Your task to perform on an android device: open app "Microsoft Outlook" (install if not already installed) Image 0: 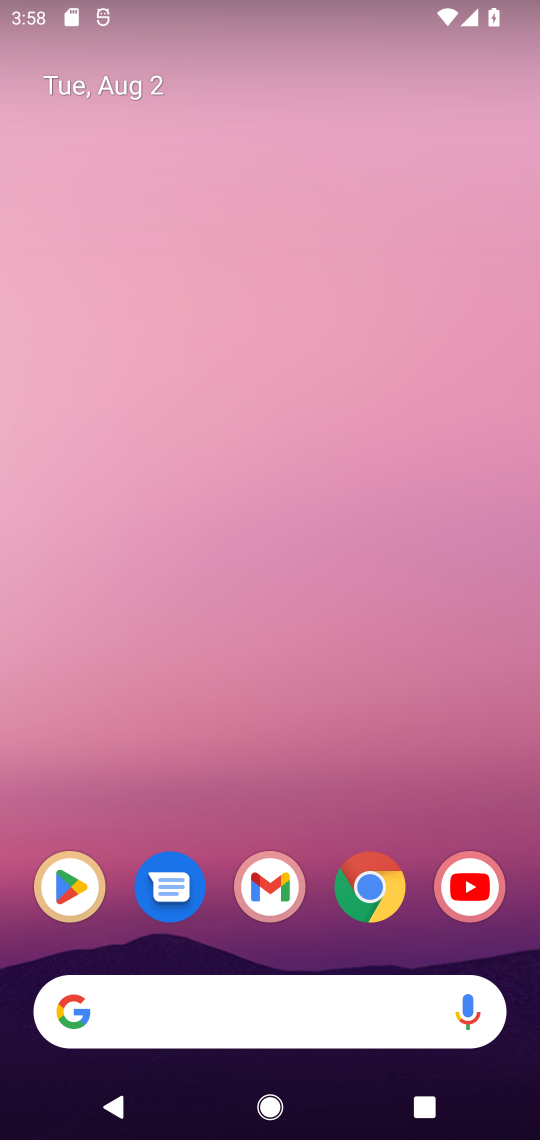
Step 0: click (57, 884)
Your task to perform on an android device: open app "Microsoft Outlook" (install if not already installed) Image 1: 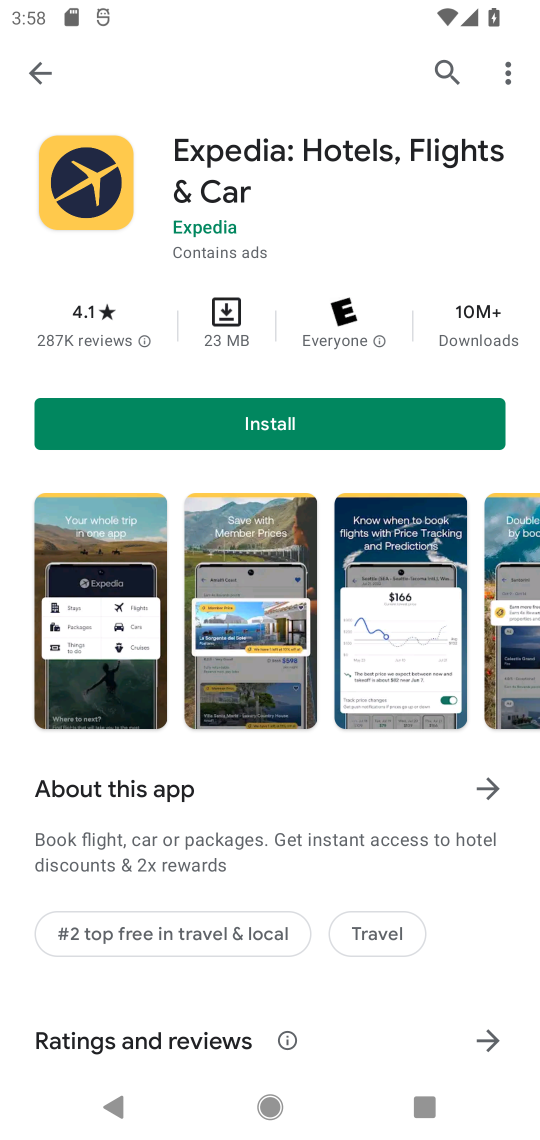
Step 1: click (28, 69)
Your task to perform on an android device: open app "Microsoft Outlook" (install if not already installed) Image 2: 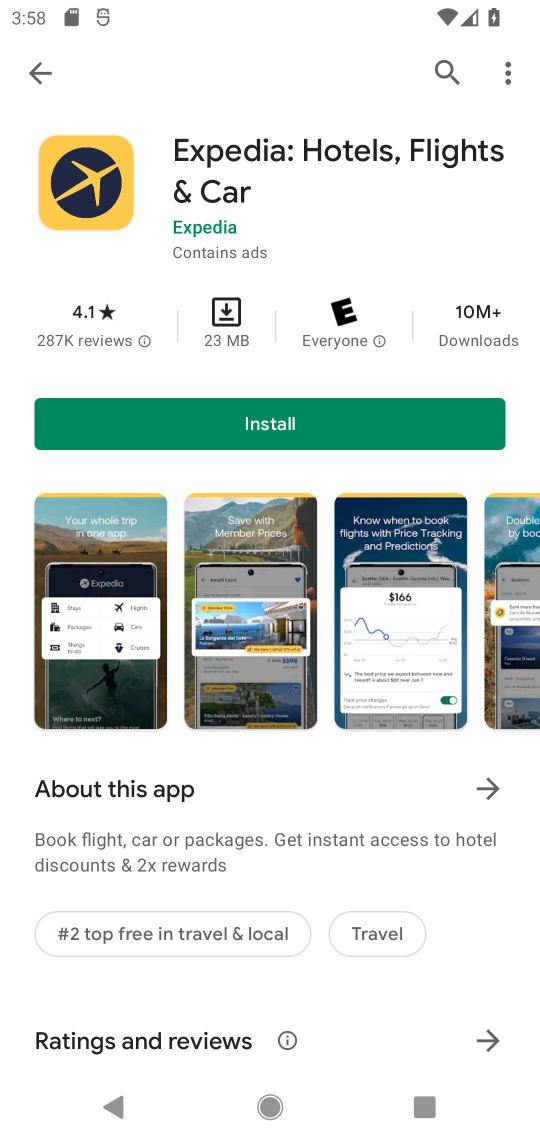
Step 2: click (39, 75)
Your task to perform on an android device: open app "Microsoft Outlook" (install if not already installed) Image 3: 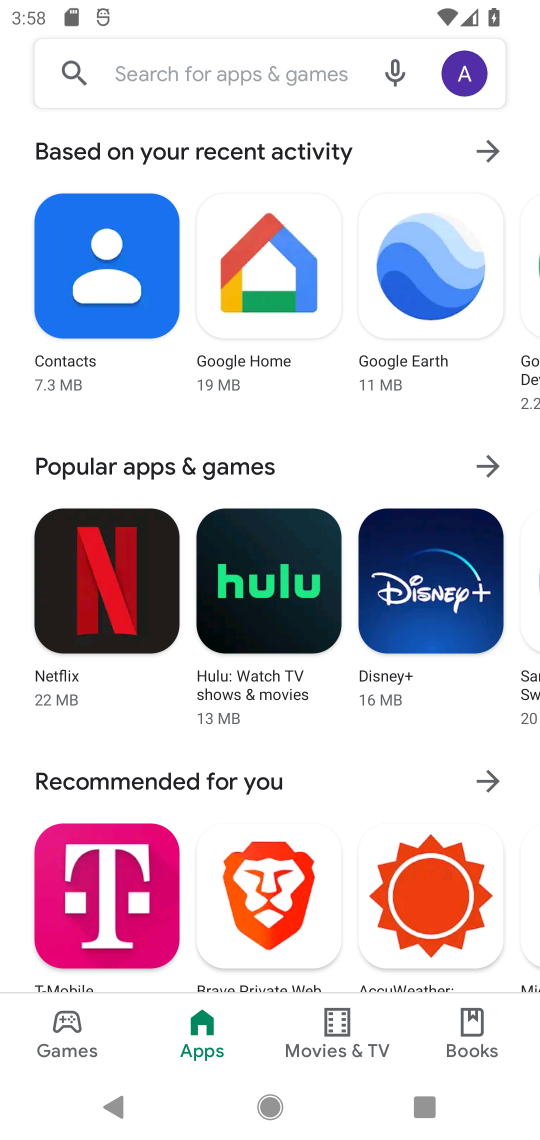
Step 3: click (157, 84)
Your task to perform on an android device: open app "Microsoft Outlook" (install if not already installed) Image 4: 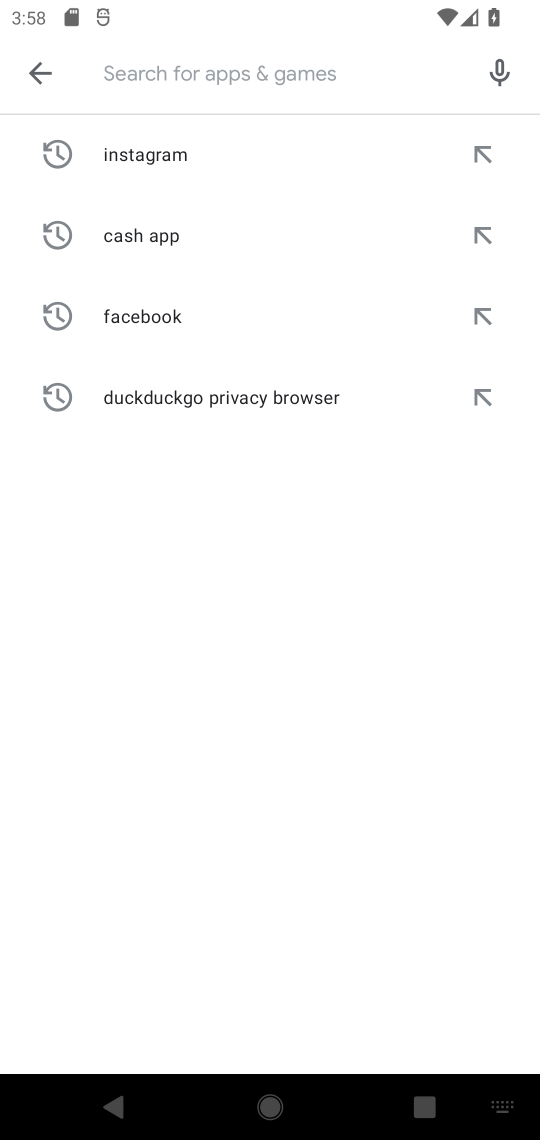
Step 4: type "Microsoft Outlook"
Your task to perform on an android device: open app "Microsoft Outlook" (install if not already installed) Image 5: 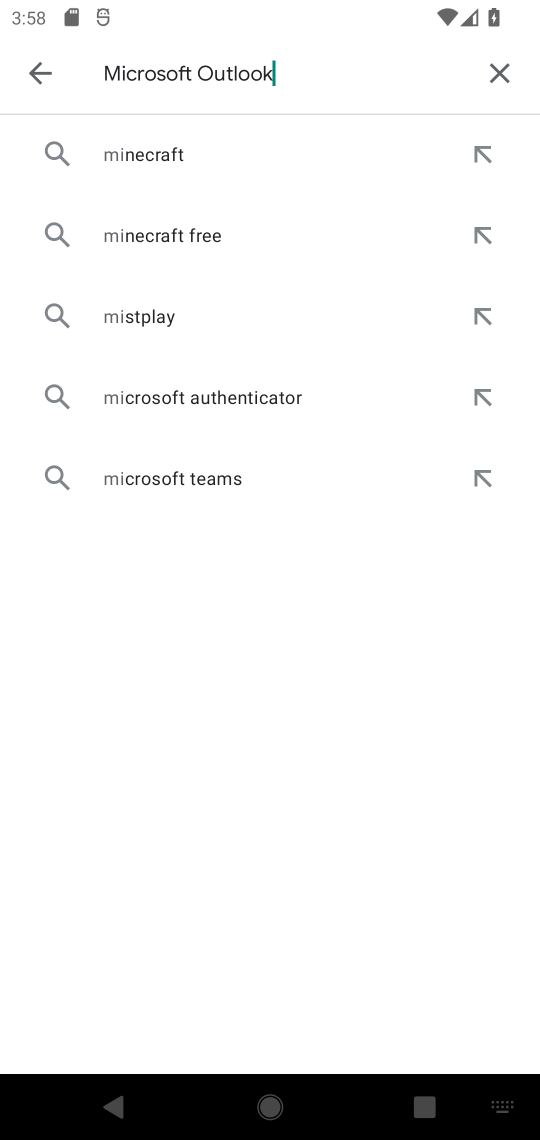
Step 5: type ""
Your task to perform on an android device: open app "Microsoft Outlook" (install if not already installed) Image 6: 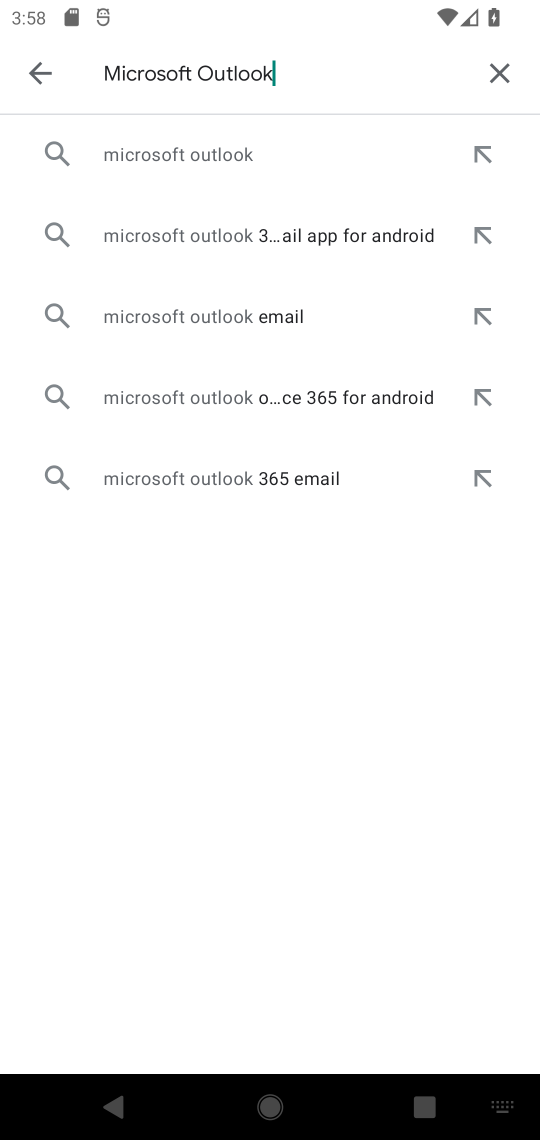
Step 6: click (294, 151)
Your task to perform on an android device: open app "Microsoft Outlook" (install if not already installed) Image 7: 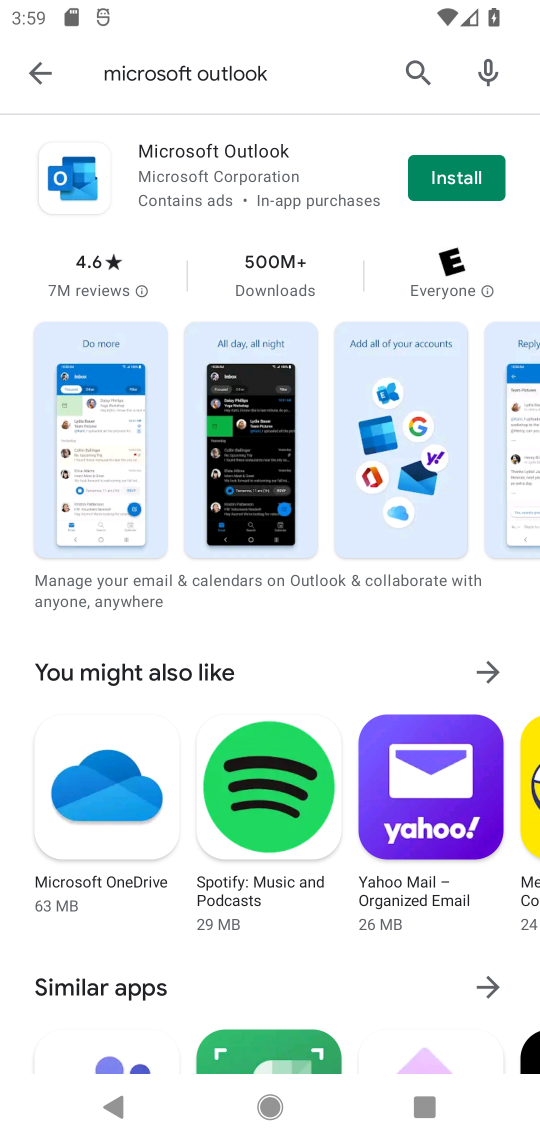
Step 7: click (445, 170)
Your task to perform on an android device: open app "Microsoft Outlook" (install if not already installed) Image 8: 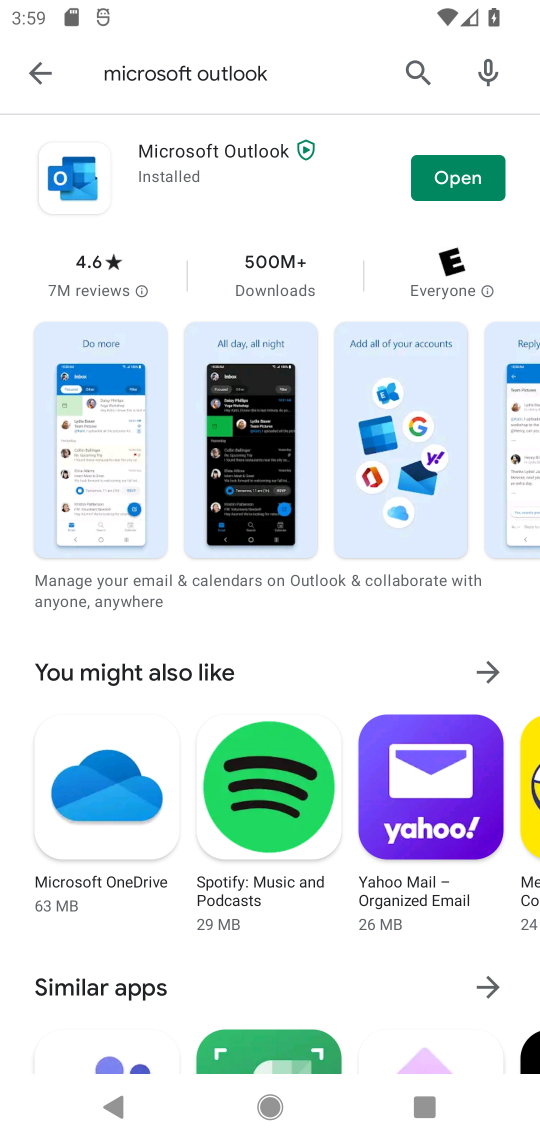
Step 8: click (435, 176)
Your task to perform on an android device: open app "Microsoft Outlook" (install if not already installed) Image 9: 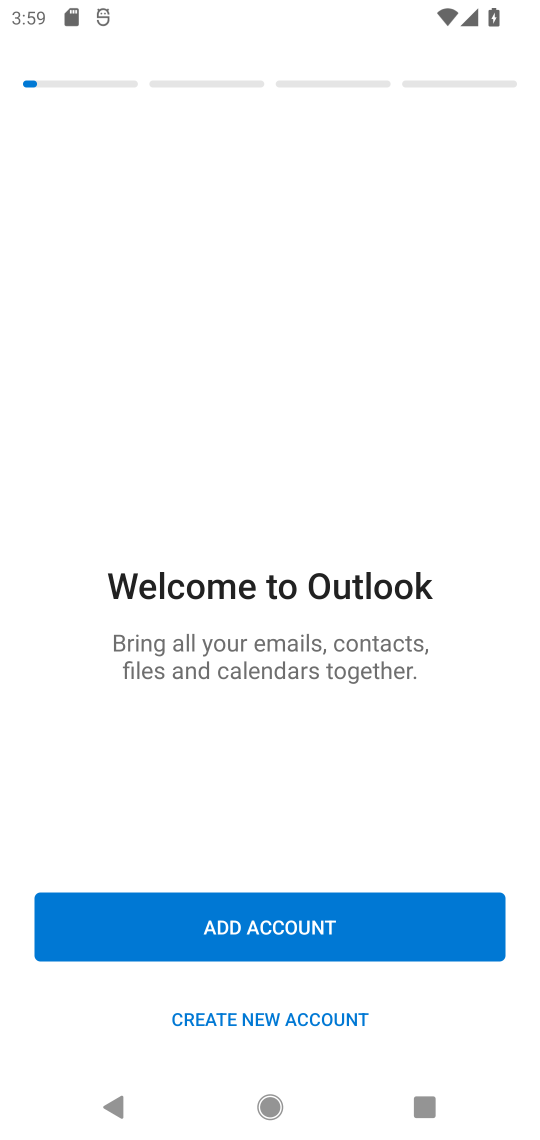
Step 9: task complete